Your task to perform on an android device: Search for pizza restaurants on Maps Image 0: 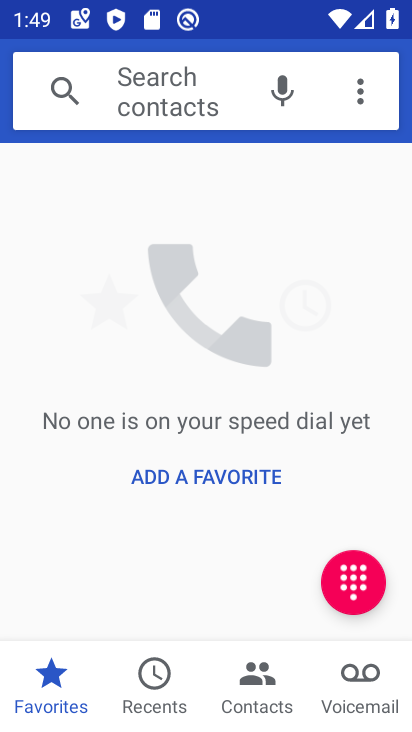
Step 0: press home button
Your task to perform on an android device: Search for pizza restaurants on Maps Image 1: 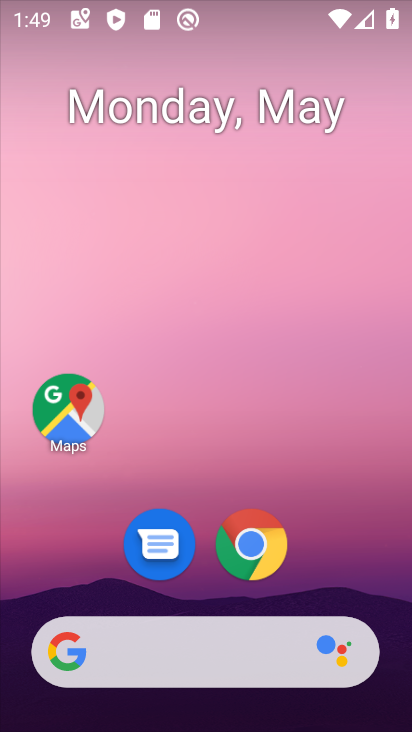
Step 1: drag from (378, 590) to (369, 214)
Your task to perform on an android device: Search for pizza restaurants on Maps Image 2: 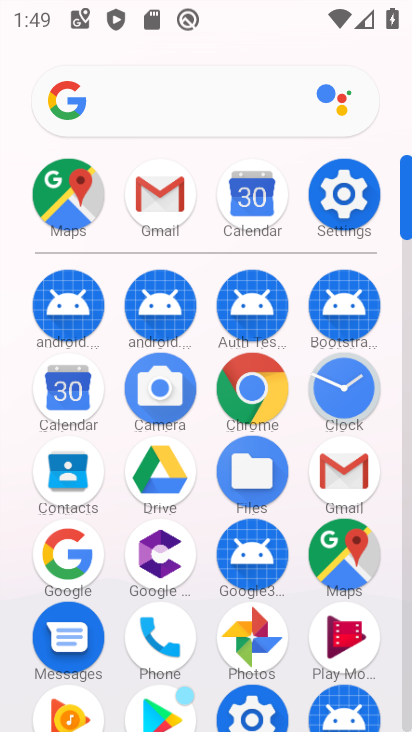
Step 2: click (348, 561)
Your task to perform on an android device: Search for pizza restaurants on Maps Image 3: 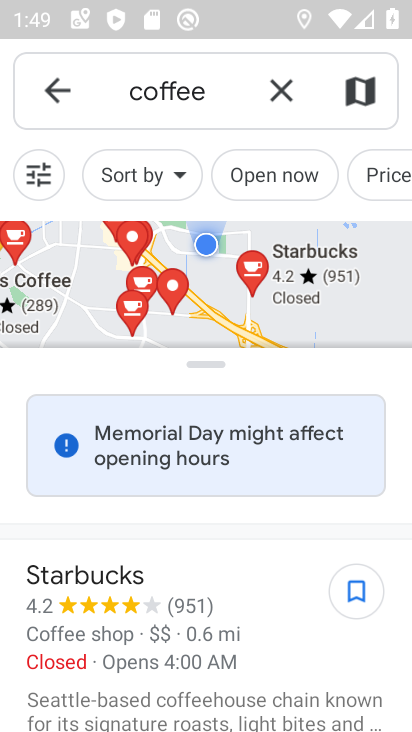
Step 3: click (287, 99)
Your task to perform on an android device: Search for pizza restaurants on Maps Image 4: 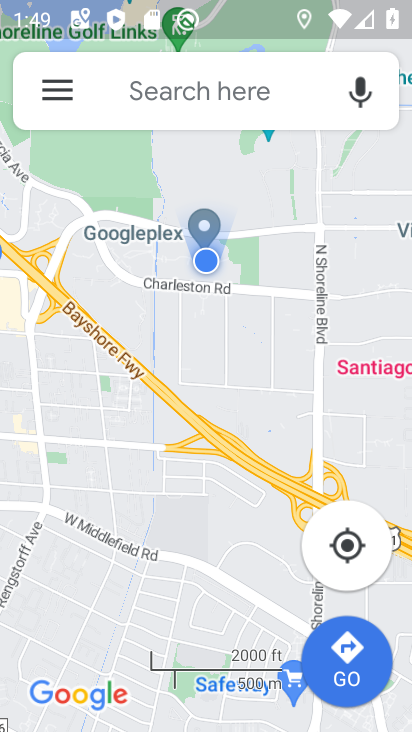
Step 4: click (218, 101)
Your task to perform on an android device: Search for pizza restaurants on Maps Image 5: 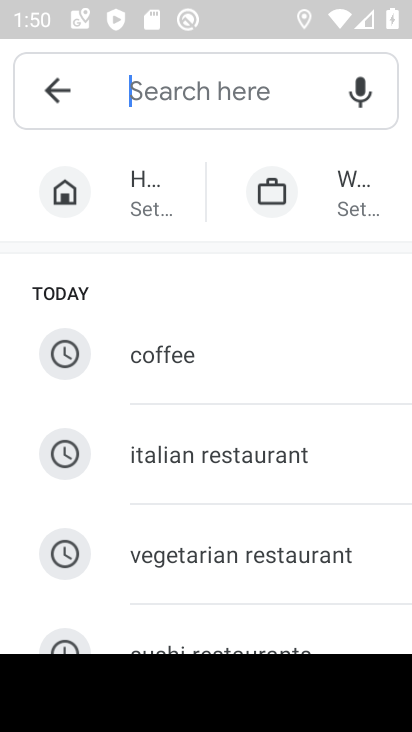
Step 5: type "pizzaa restaurants"
Your task to perform on an android device: Search for pizza restaurants on Maps Image 6: 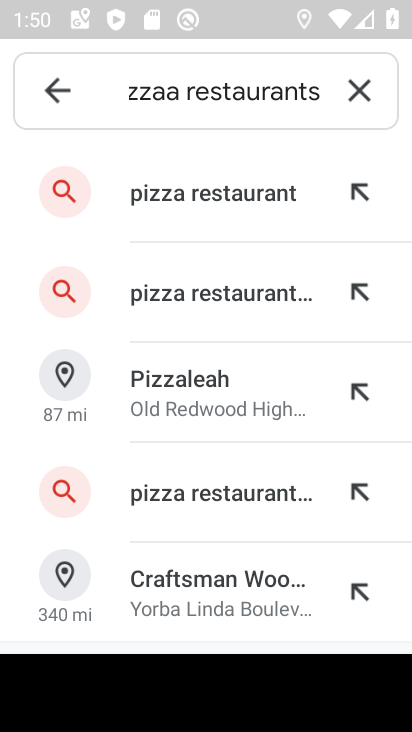
Step 6: click (254, 212)
Your task to perform on an android device: Search for pizza restaurants on Maps Image 7: 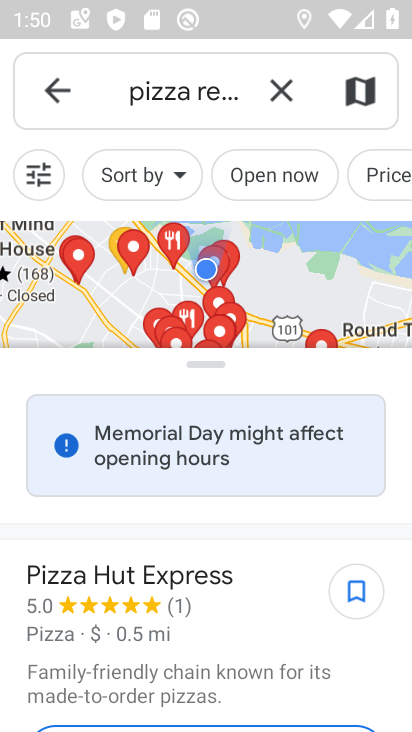
Step 7: task complete